Your task to perform on an android device: Go to privacy settings Image 0: 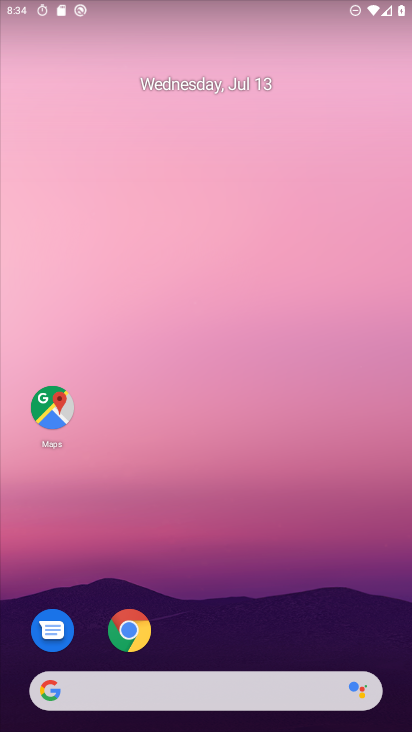
Step 0: drag from (387, 642) to (265, 79)
Your task to perform on an android device: Go to privacy settings Image 1: 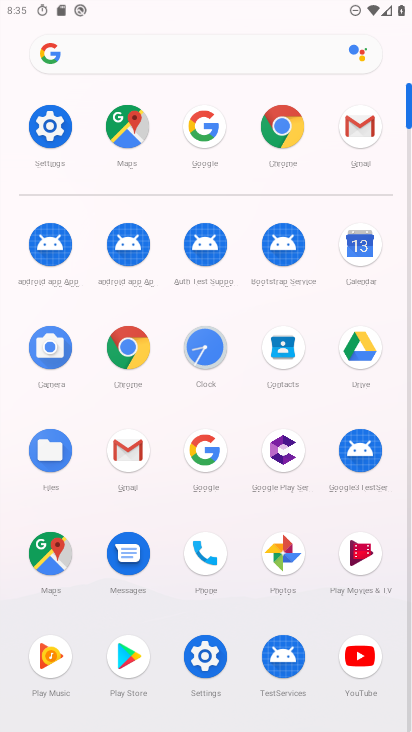
Step 1: click (191, 657)
Your task to perform on an android device: Go to privacy settings Image 2: 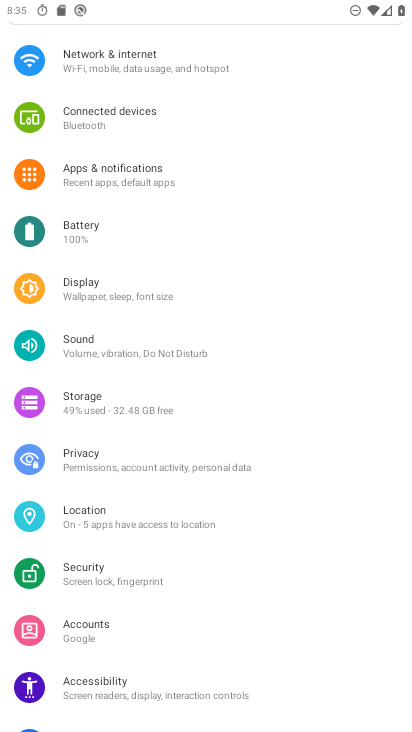
Step 2: click (89, 454)
Your task to perform on an android device: Go to privacy settings Image 3: 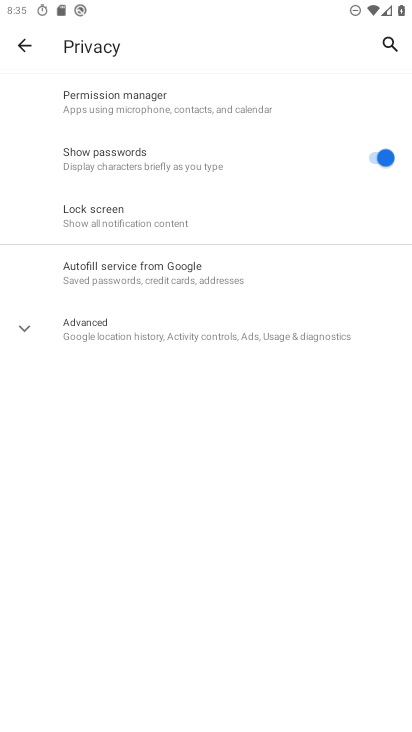
Step 3: task complete